Your task to perform on an android device: Go to network settings Image 0: 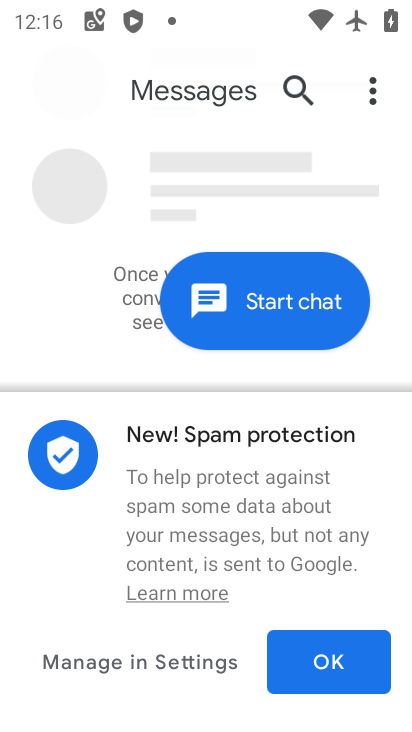
Step 0: press home button
Your task to perform on an android device: Go to network settings Image 1: 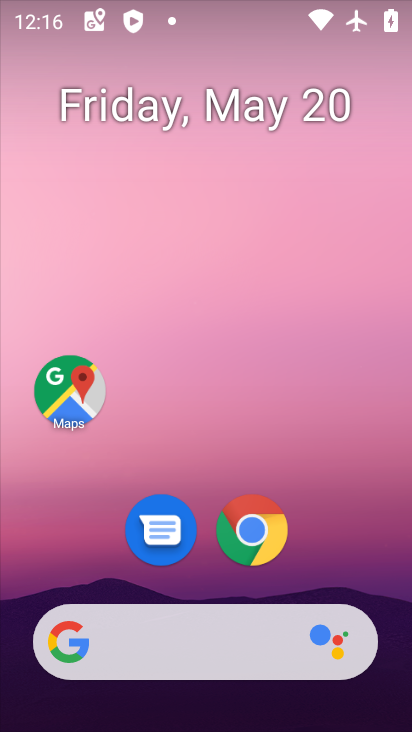
Step 1: drag from (234, 669) to (332, 3)
Your task to perform on an android device: Go to network settings Image 2: 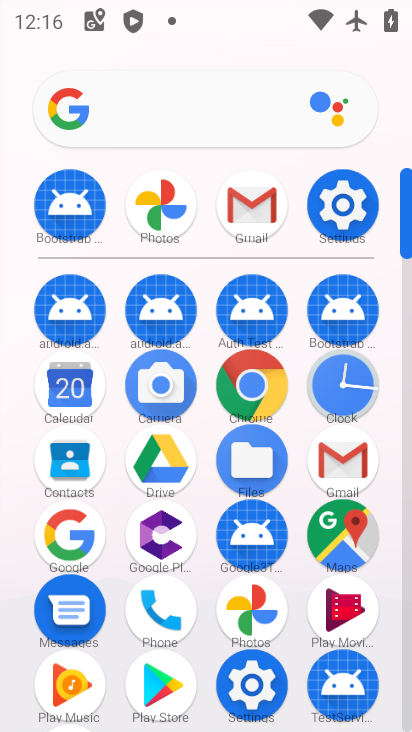
Step 2: click (343, 216)
Your task to perform on an android device: Go to network settings Image 3: 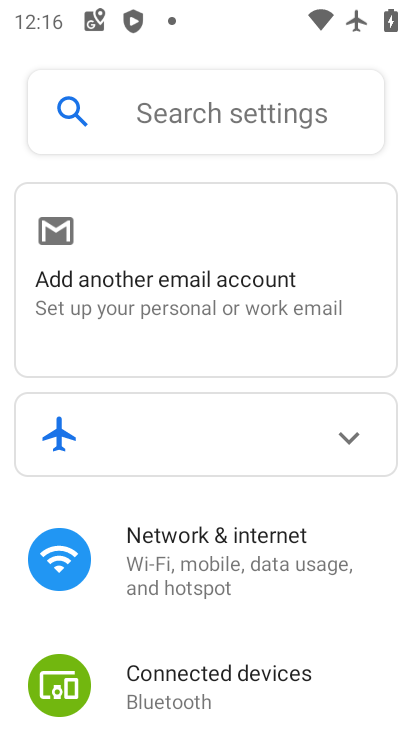
Step 3: click (270, 549)
Your task to perform on an android device: Go to network settings Image 4: 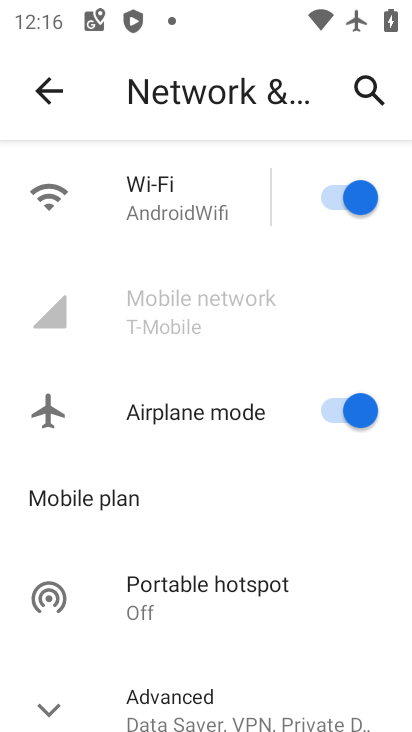
Step 4: task complete